Your task to perform on an android device: Find a good burger place on Maps Image 0: 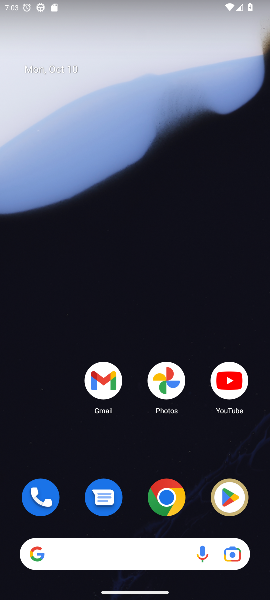
Step 0: drag from (169, 506) to (162, 184)
Your task to perform on an android device: Find a good burger place on Maps Image 1: 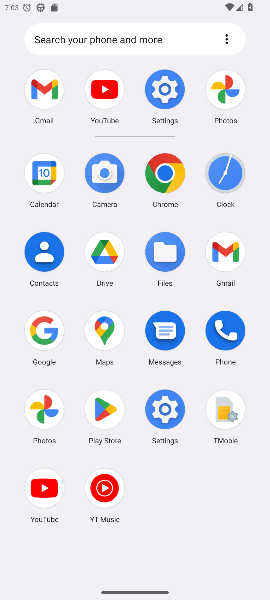
Step 1: click (37, 328)
Your task to perform on an android device: Find a good burger place on Maps Image 2: 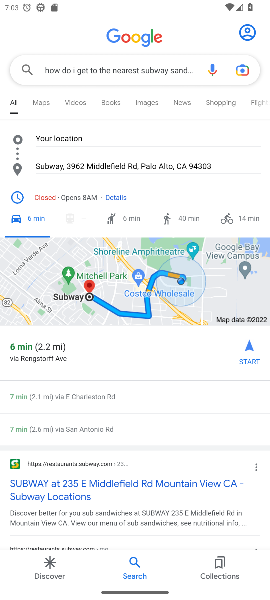
Step 2: click (129, 66)
Your task to perform on an android device: Find a good burger place on Maps Image 3: 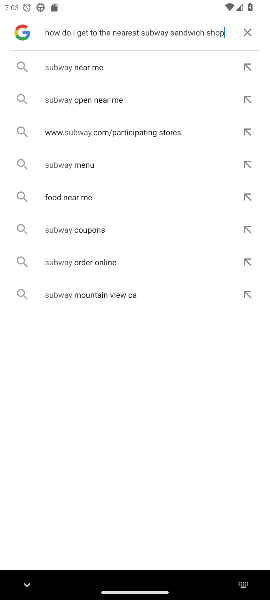
Step 3: click (244, 30)
Your task to perform on an android device: Find a good burger place on Maps Image 4: 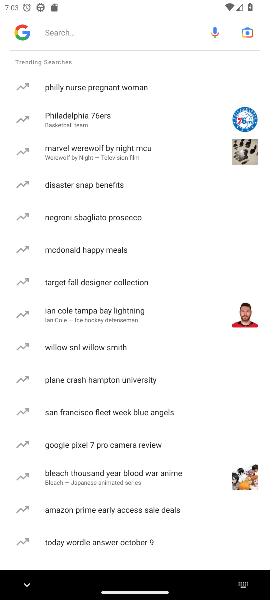
Step 4: click (104, 31)
Your task to perform on an android device: Find a good burger place on Maps Image 5: 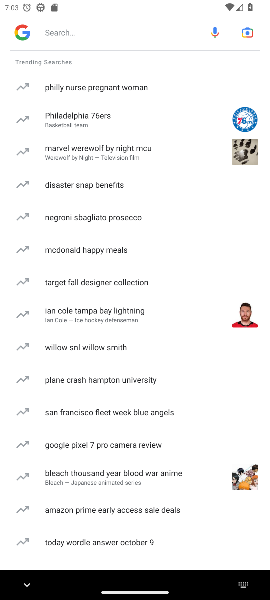
Step 5: type "Find a good burger place on Maps "
Your task to perform on an android device: Find a good burger place on Maps Image 6: 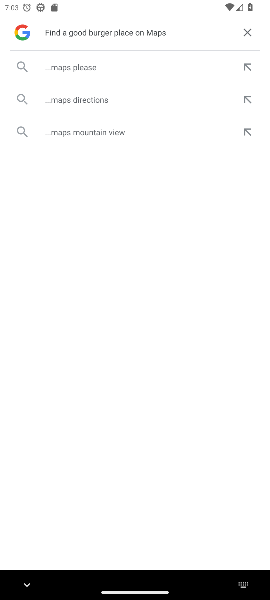
Step 6: click (98, 67)
Your task to perform on an android device: Find a good burger place on Maps Image 7: 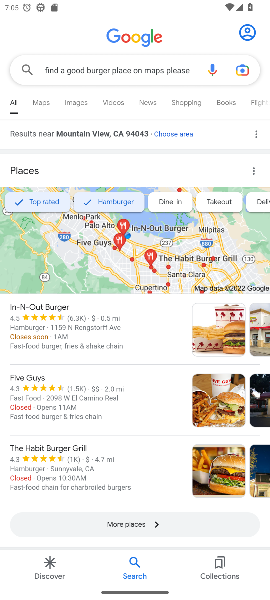
Step 7: task complete